Your task to perform on an android device: turn on location history Image 0: 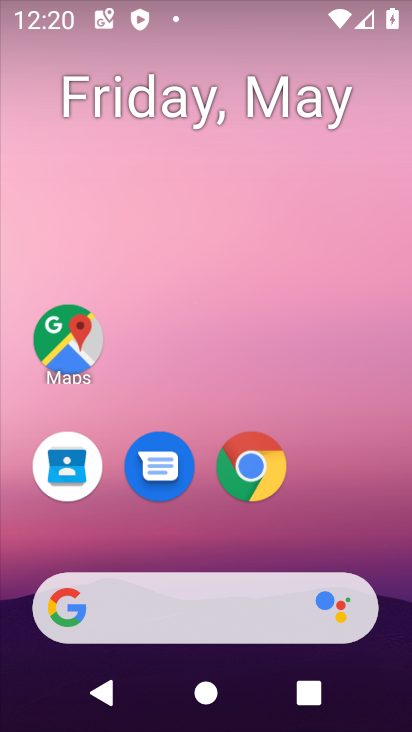
Step 0: click (244, 24)
Your task to perform on an android device: turn on location history Image 1: 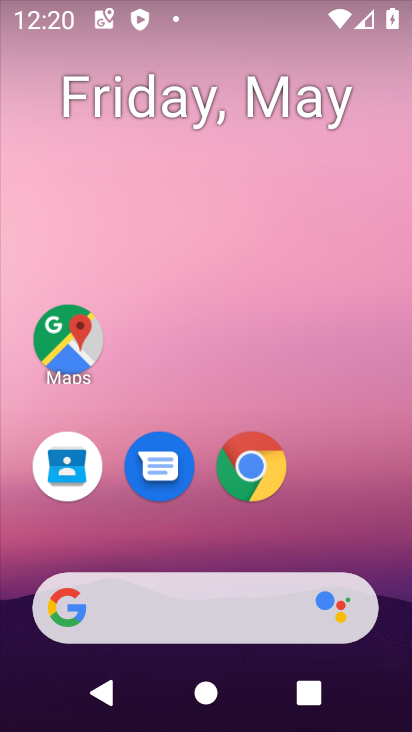
Step 1: drag from (239, 551) to (229, 176)
Your task to perform on an android device: turn on location history Image 2: 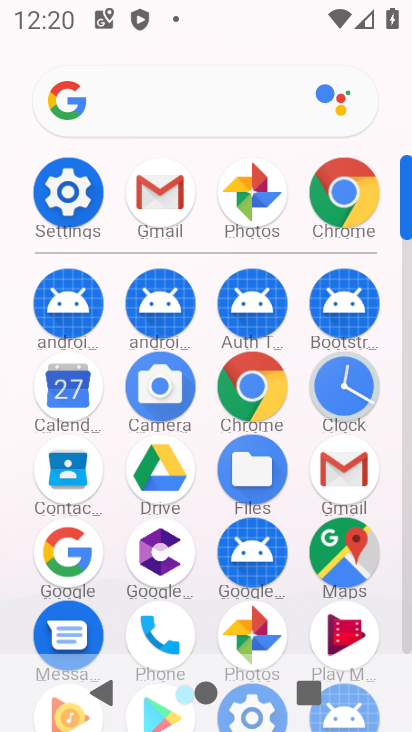
Step 2: click (66, 203)
Your task to perform on an android device: turn on location history Image 3: 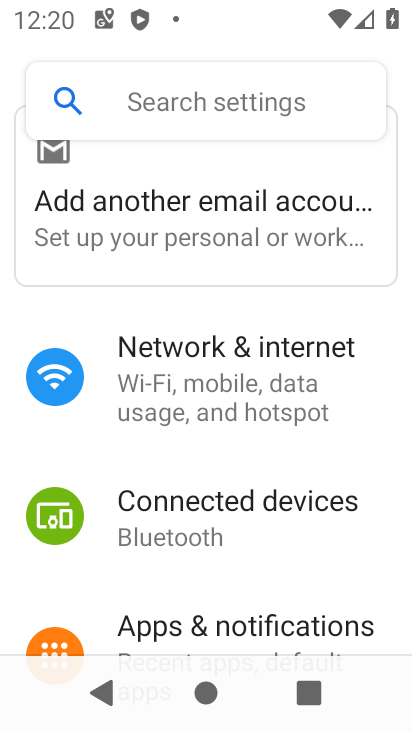
Step 3: drag from (192, 581) to (250, 153)
Your task to perform on an android device: turn on location history Image 4: 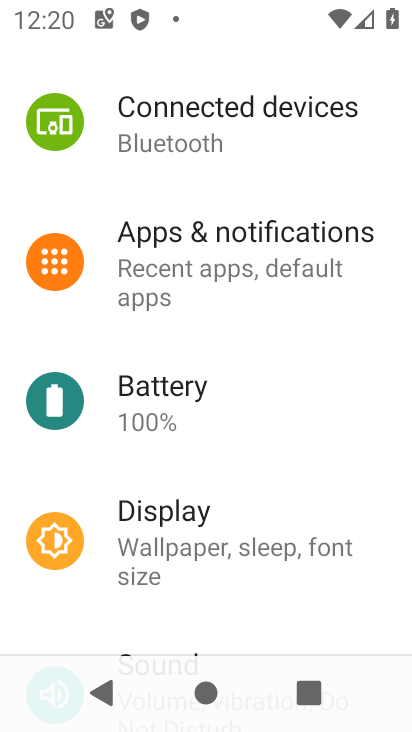
Step 4: drag from (219, 595) to (280, 132)
Your task to perform on an android device: turn on location history Image 5: 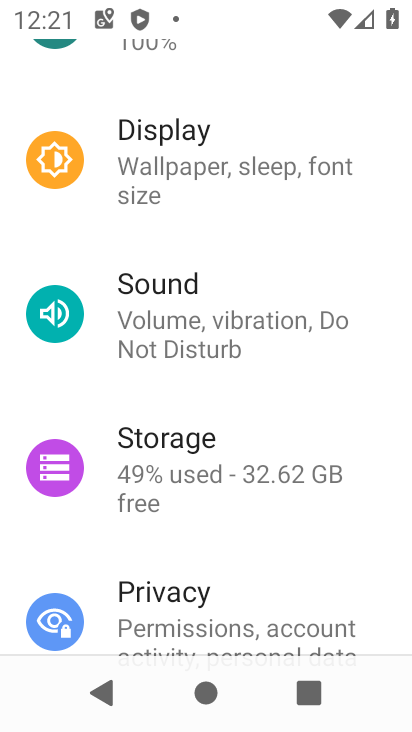
Step 5: drag from (185, 533) to (220, 131)
Your task to perform on an android device: turn on location history Image 6: 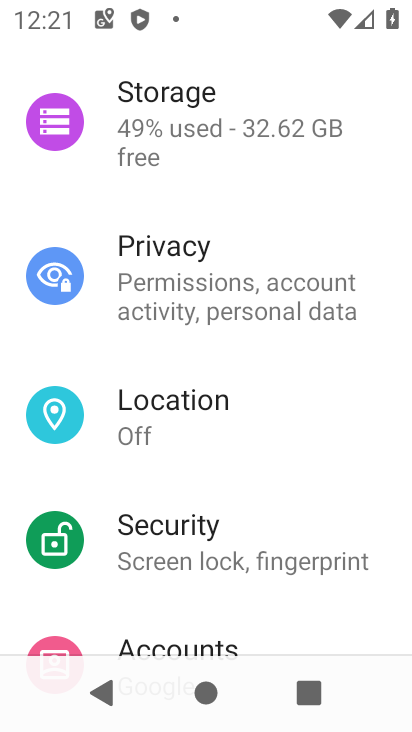
Step 6: click (191, 429)
Your task to perform on an android device: turn on location history Image 7: 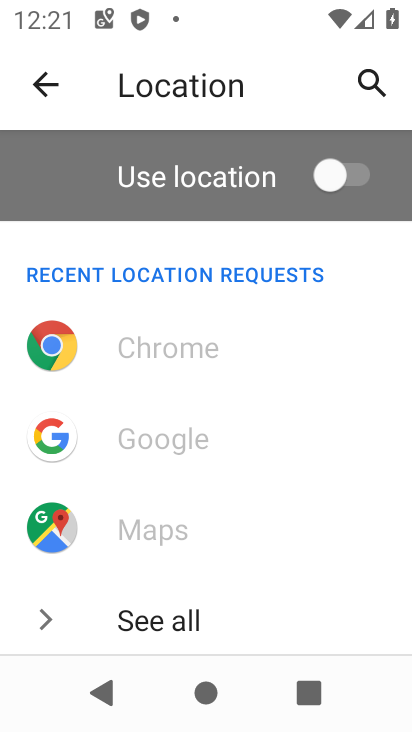
Step 7: drag from (240, 582) to (262, 236)
Your task to perform on an android device: turn on location history Image 8: 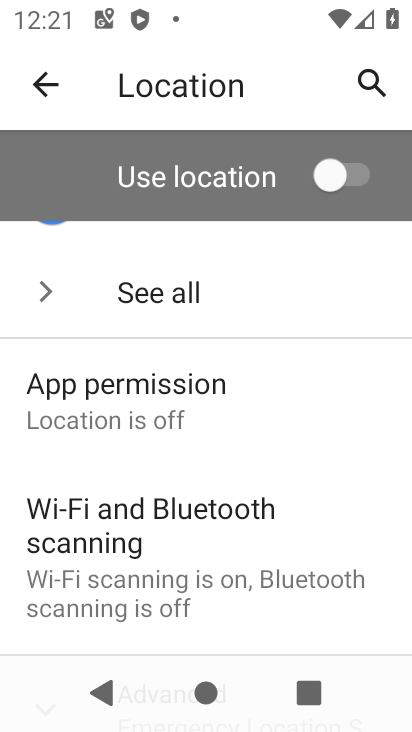
Step 8: drag from (209, 617) to (237, 351)
Your task to perform on an android device: turn on location history Image 9: 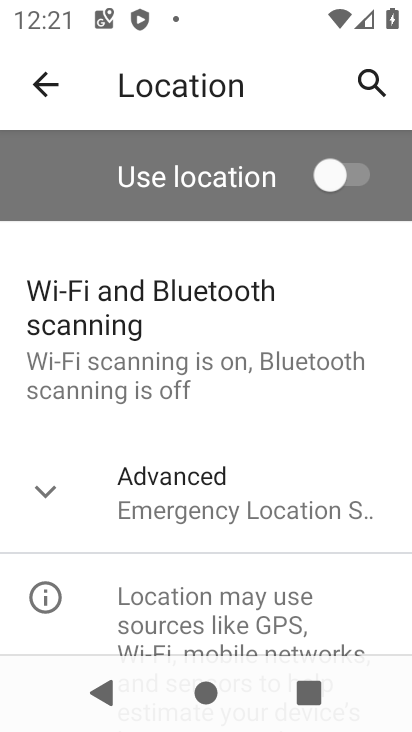
Step 9: click (209, 501)
Your task to perform on an android device: turn on location history Image 10: 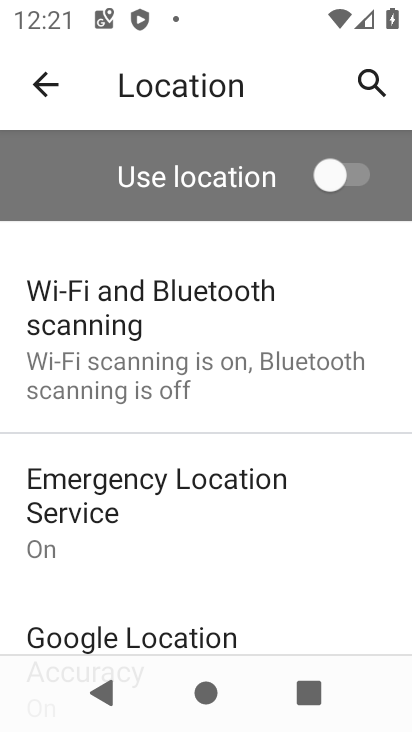
Step 10: drag from (195, 558) to (193, 121)
Your task to perform on an android device: turn on location history Image 11: 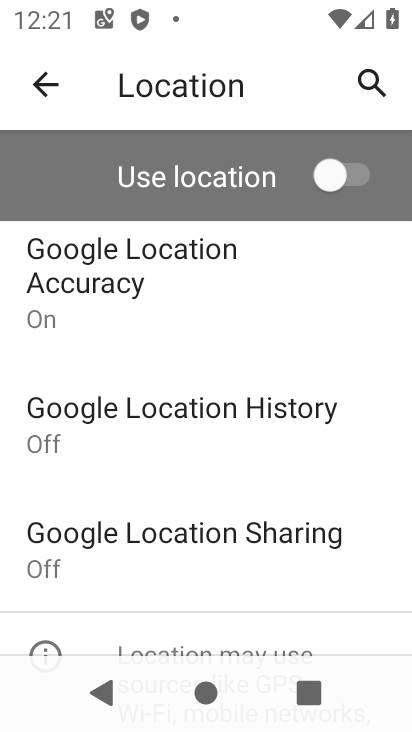
Step 11: click (133, 291)
Your task to perform on an android device: turn on location history Image 12: 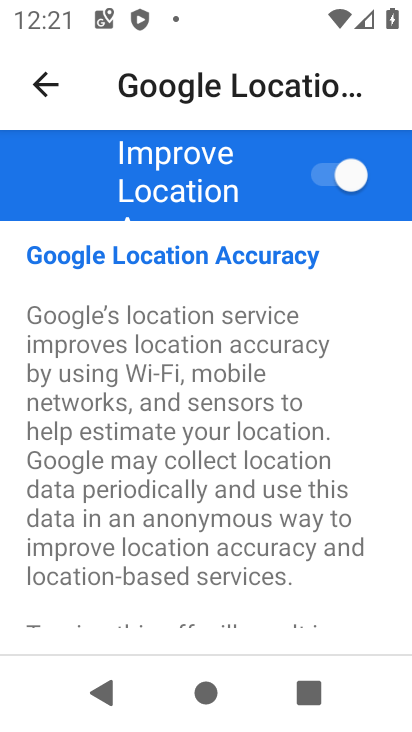
Step 12: drag from (208, 525) to (257, 250)
Your task to perform on an android device: turn on location history Image 13: 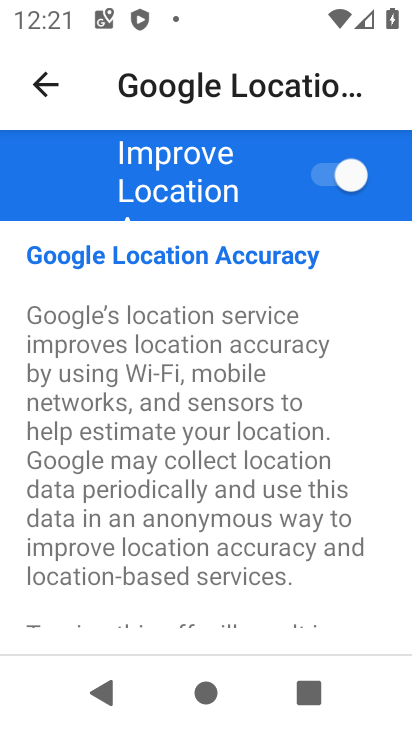
Step 13: click (44, 90)
Your task to perform on an android device: turn on location history Image 14: 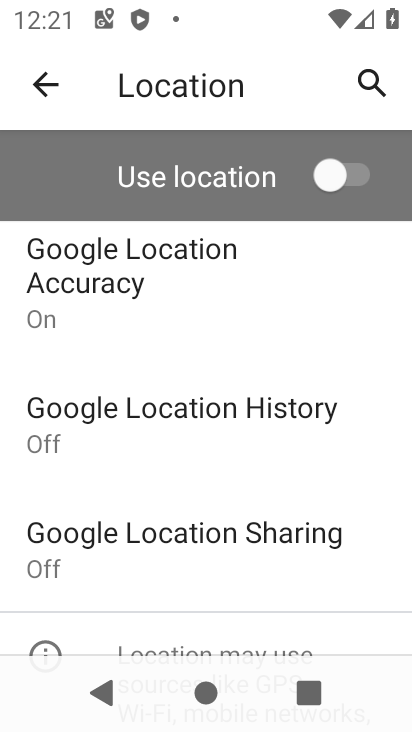
Step 14: click (177, 421)
Your task to perform on an android device: turn on location history Image 15: 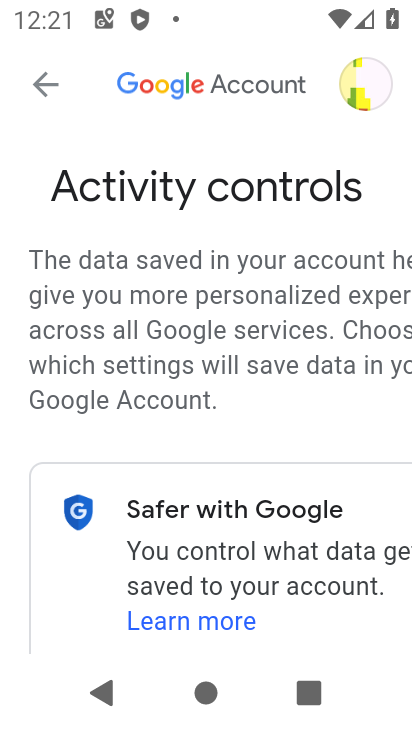
Step 15: drag from (249, 552) to (280, 227)
Your task to perform on an android device: turn on location history Image 16: 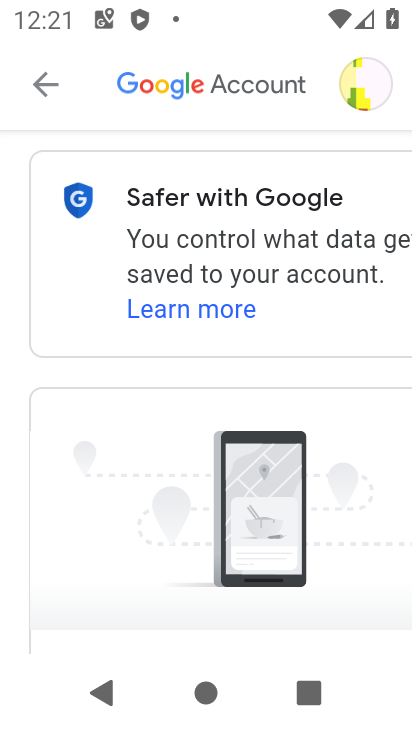
Step 16: drag from (306, 576) to (309, 229)
Your task to perform on an android device: turn on location history Image 17: 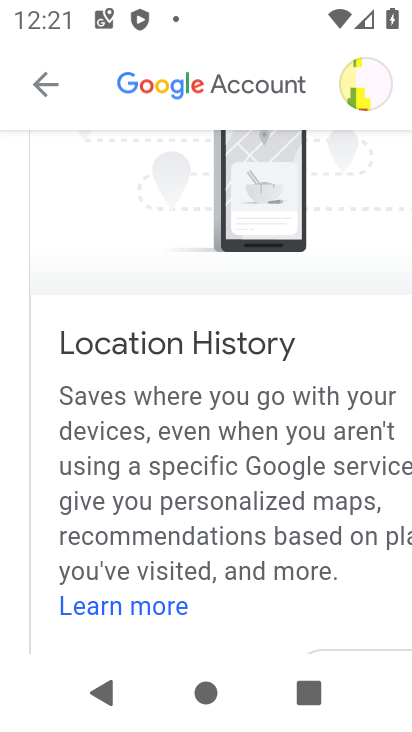
Step 17: drag from (284, 520) to (308, 162)
Your task to perform on an android device: turn on location history Image 18: 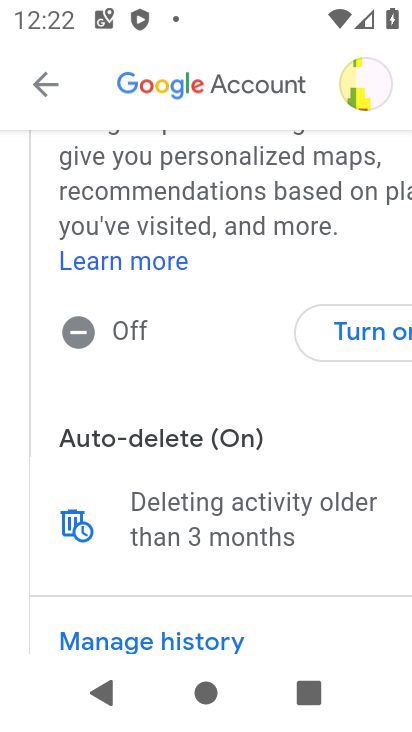
Step 18: click (345, 345)
Your task to perform on an android device: turn on location history Image 19: 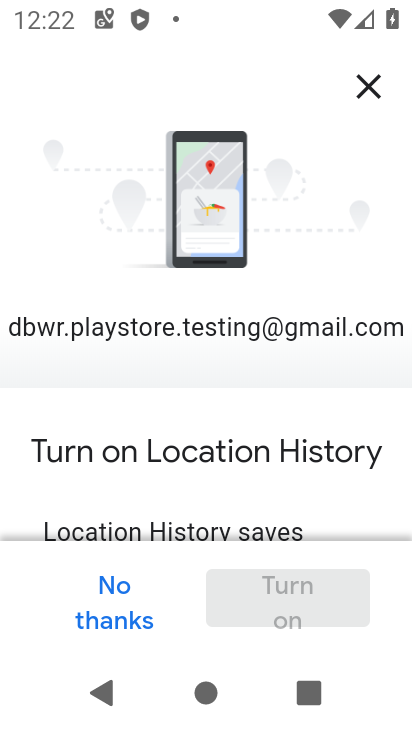
Step 19: click (283, 82)
Your task to perform on an android device: turn on location history Image 20: 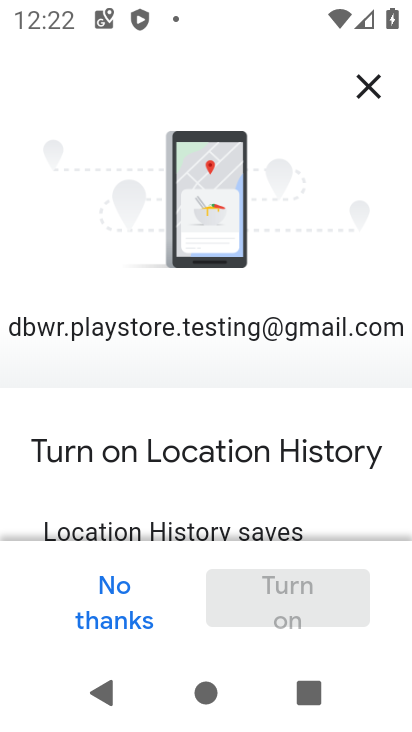
Step 20: drag from (254, 466) to (252, 70)
Your task to perform on an android device: turn on location history Image 21: 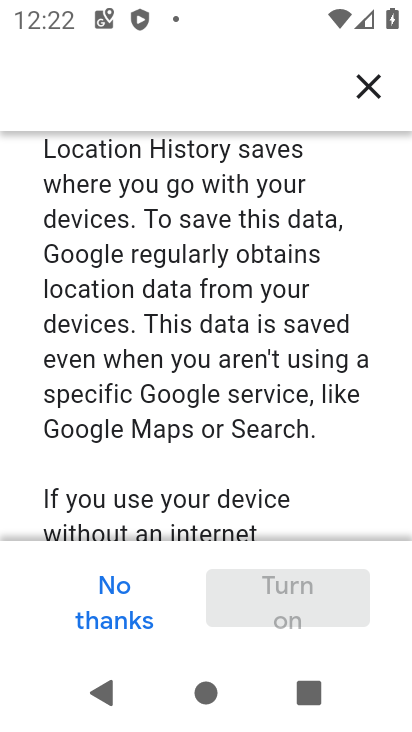
Step 21: drag from (203, 490) to (203, 132)
Your task to perform on an android device: turn on location history Image 22: 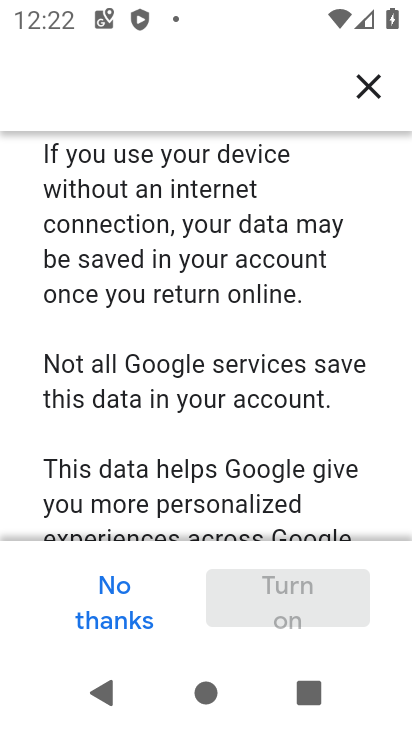
Step 22: drag from (249, 473) to (258, 1)
Your task to perform on an android device: turn on location history Image 23: 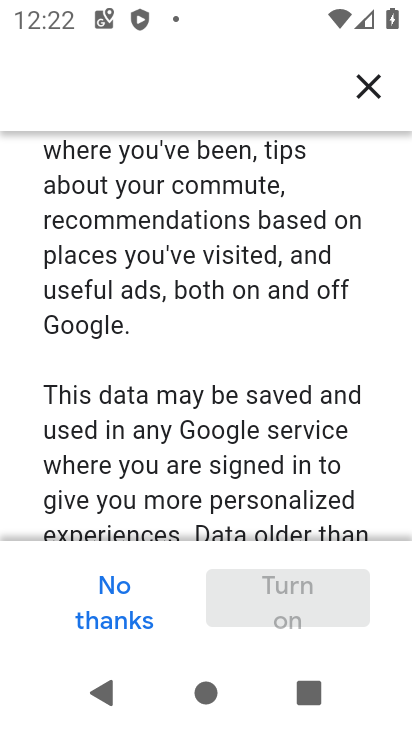
Step 23: drag from (200, 411) to (193, 5)
Your task to perform on an android device: turn on location history Image 24: 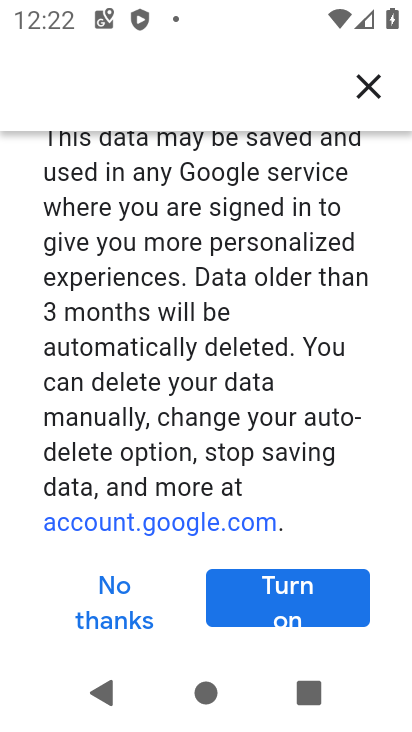
Step 24: click (272, 602)
Your task to perform on an android device: turn on location history Image 25: 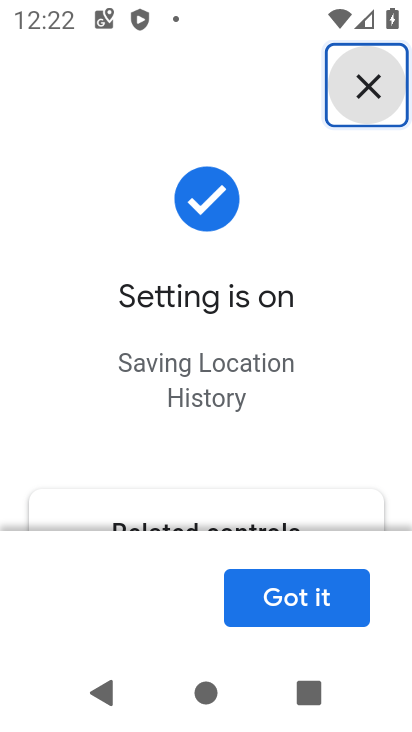
Step 25: click (272, 602)
Your task to perform on an android device: turn on location history Image 26: 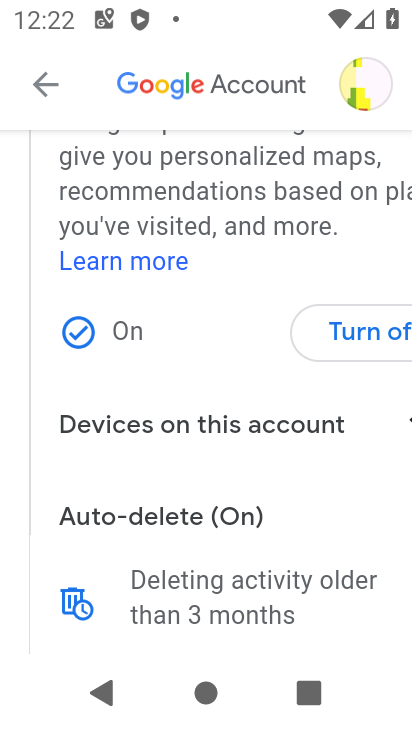
Step 26: task complete